Your task to perform on an android device: see sites visited before in the chrome app Image 0: 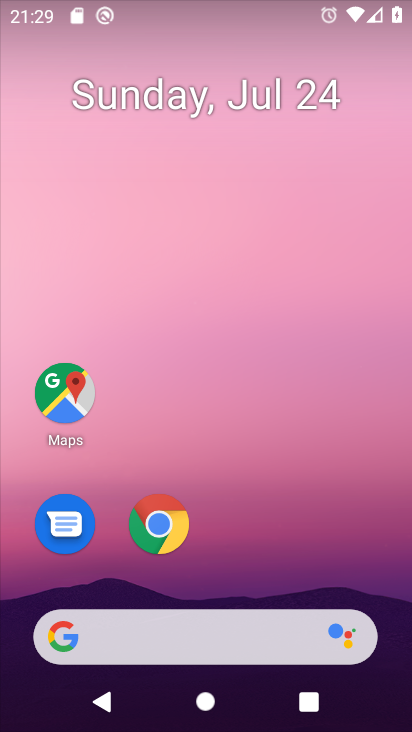
Step 0: drag from (266, 556) to (271, 104)
Your task to perform on an android device: see sites visited before in the chrome app Image 1: 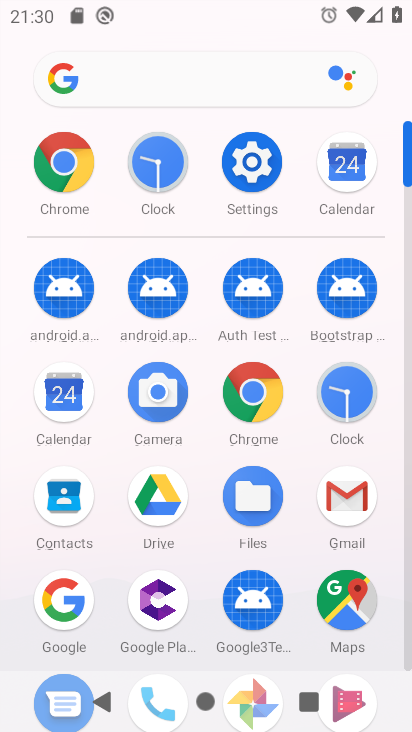
Step 1: click (66, 171)
Your task to perform on an android device: see sites visited before in the chrome app Image 2: 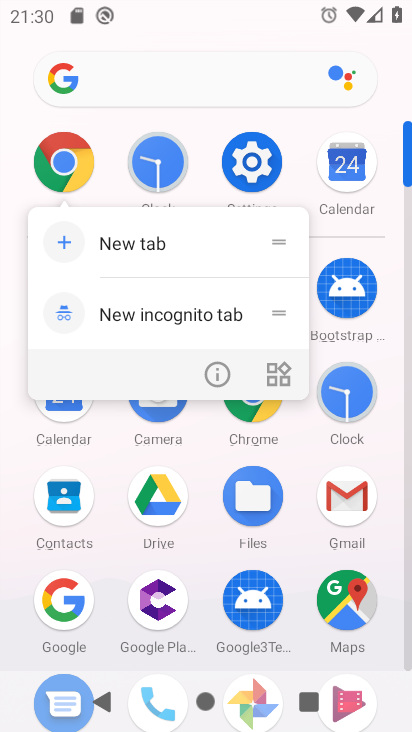
Step 2: click (66, 169)
Your task to perform on an android device: see sites visited before in the chrome app Image 3: 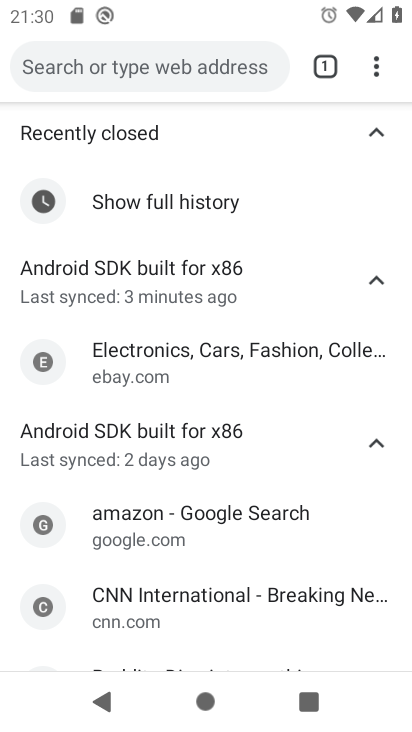
Step 3: click (378, 81)
Your task to perform on an android device: see sites visited before in the chrome app Image 4: 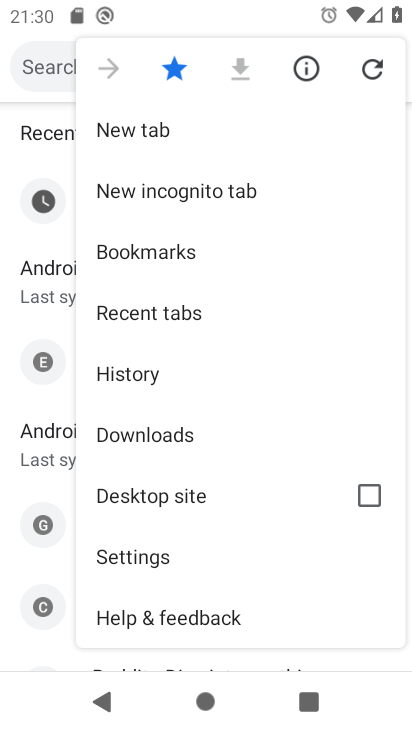
Step 4: click (191, 310)
Your task to perform on an android device: see sites visited before in the chrome app Image 5: 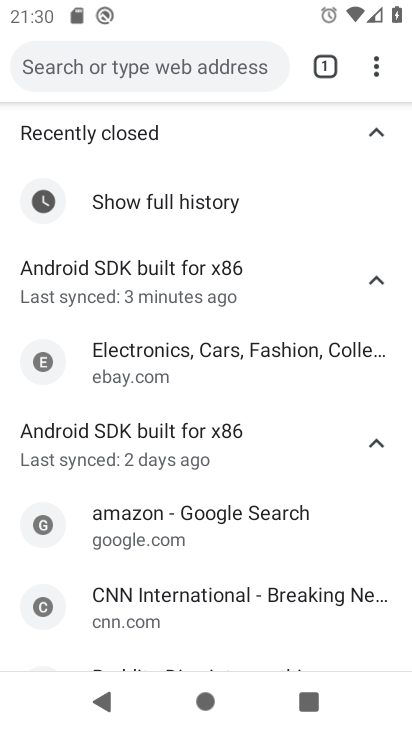
Step 5: task complete